Your task to perform on an android device: delete a single message in the gmail app Image 0: 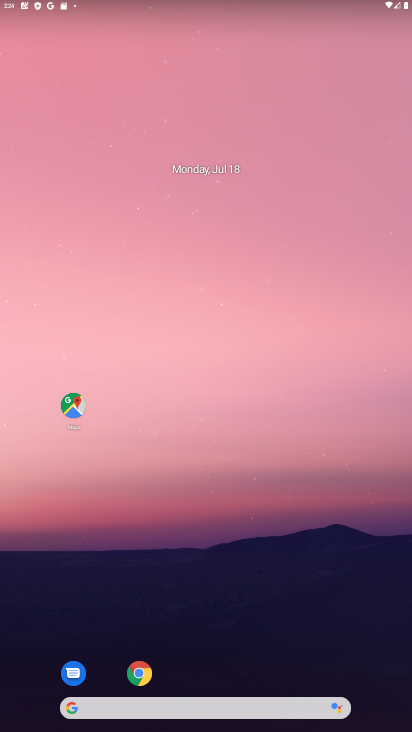
Step 0: drag from (226, 618) to (247, 218)
Your task to perform on an android device: delete a single message in the gmail app Image 1: 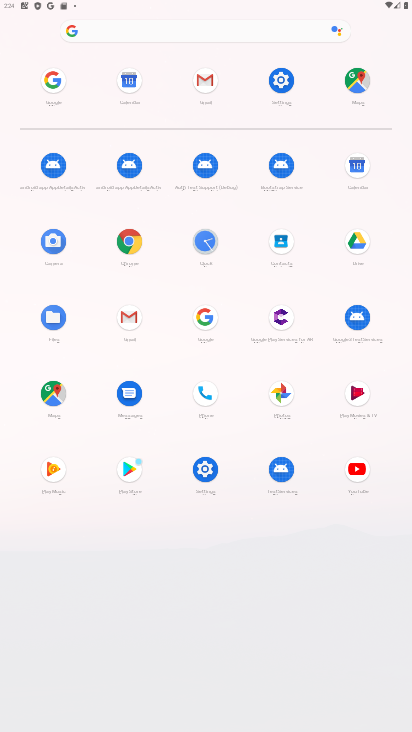
Step 1: click (127, 314)
Your task to perform on an android device: delete a single message in the gmail app Image 2: 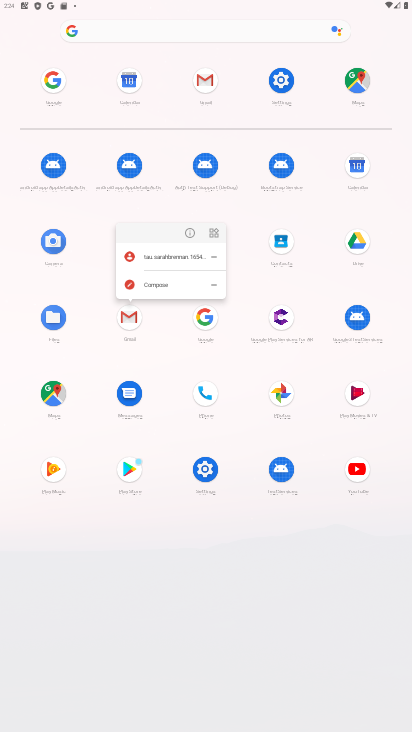
Step 2: click (128, 314)
Your task to perform on an android device: delete a single message in the gmail app Image 3: 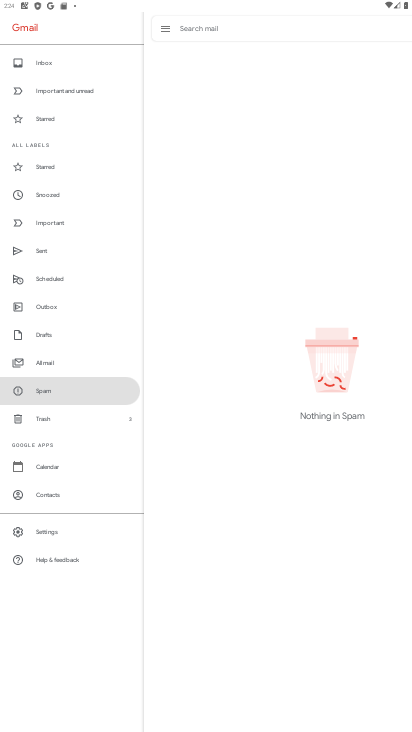
Step 3: click (42, 66)
Your task to perform on an android device: delete a single message in the gmail app Image 4: 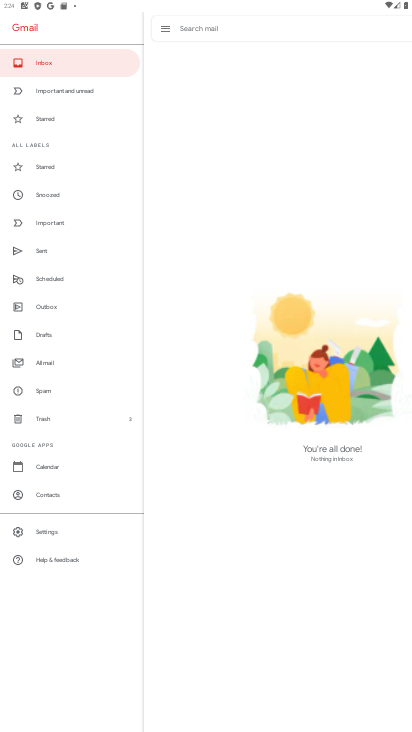
Step 4: click (50, 99)
Your task to perform on an android device: delete a single message in the gmail app Image 5: 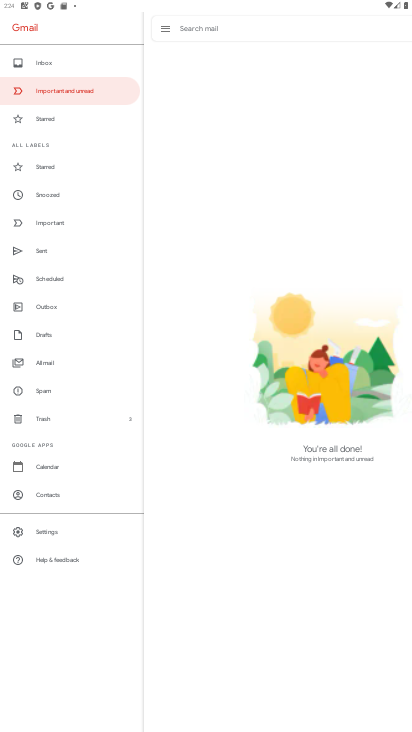
Step 5: click (33, 123)
Your task to perform on an android device: delete a single message in the gmail app Image 6: 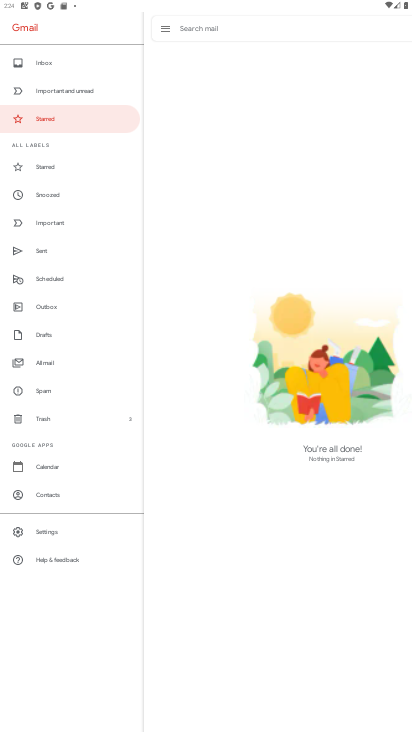
Step 6: click (41, 162)
Your task to perform on an android device: delete a single message in the gmail app Image 7: 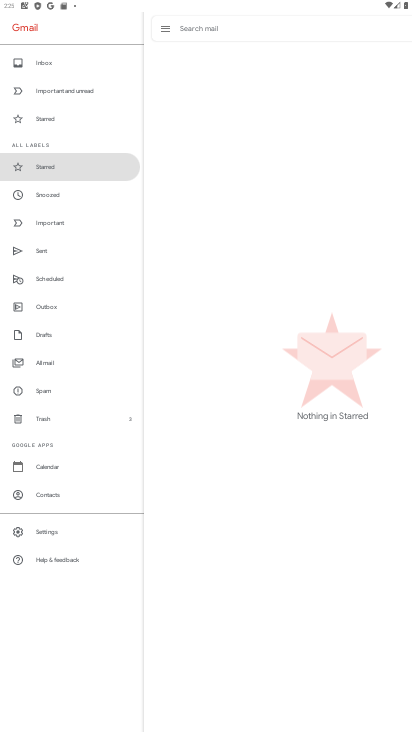
Step 7: click (46, 194)
Your task to perform on an android device: delete a single message in the gmail app Image 8: 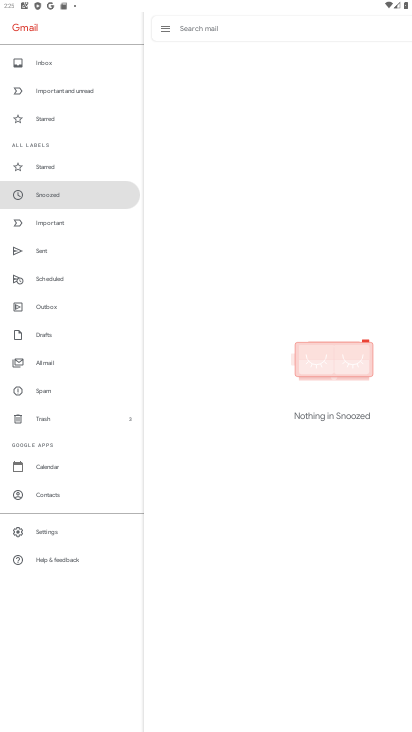
Step 8: click (55, 222)
Your task to perform on an android device: delete a single message in the gmail app Image 9: 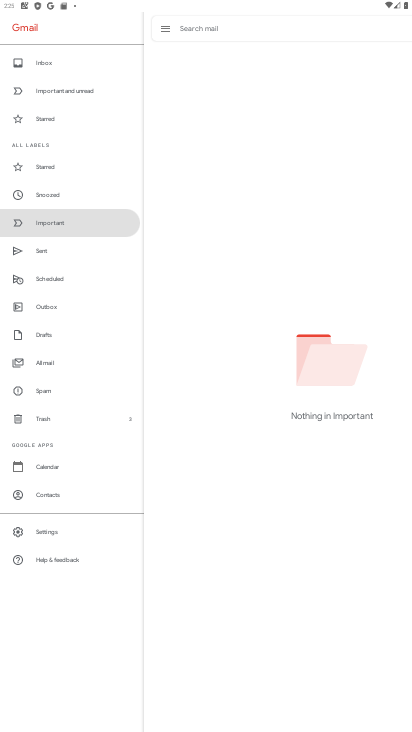
Step 9: click (39, 252)
Your task to perform on an android device: delete a single message in the gmail app Image 10: 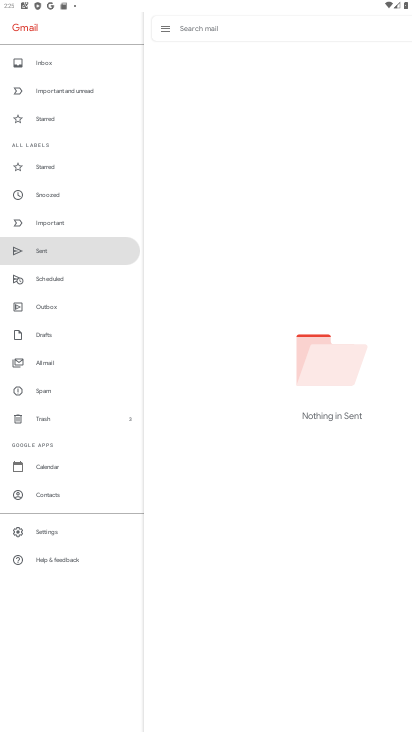
Step 10: click (46, 279)
Your task to perform on an android device: delete a single message in the gmail app Image 11: 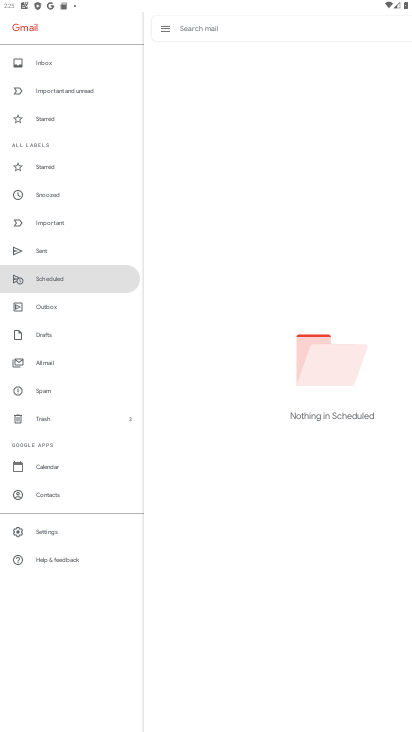
Step 11: click (57, 313)
Your task to perform on an android device: delete a single message in the gmail app Image 12: 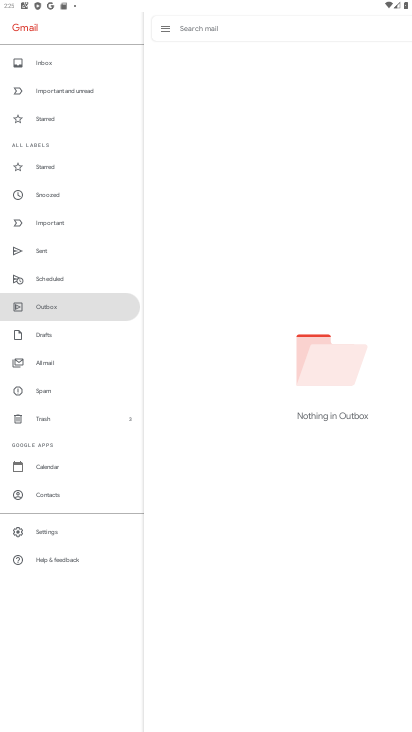
Step 12: click (49, 340)
Your task to perform on an android device: delete a single message in the gmail app Image 13: 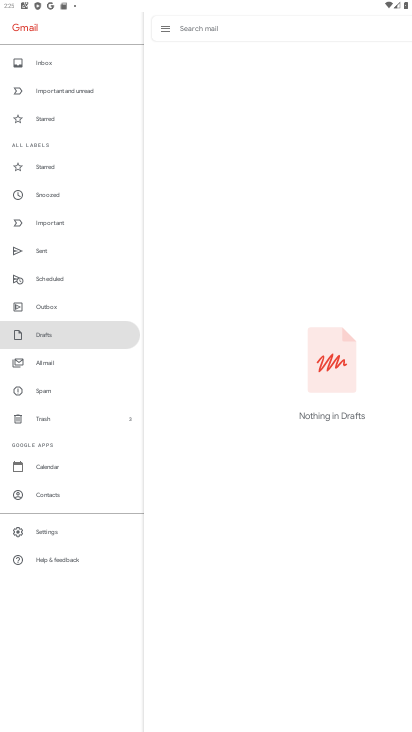
Step 13: click (39, 360)
Your task to perform on an android device: delete a single message in the gmail app Image 14: 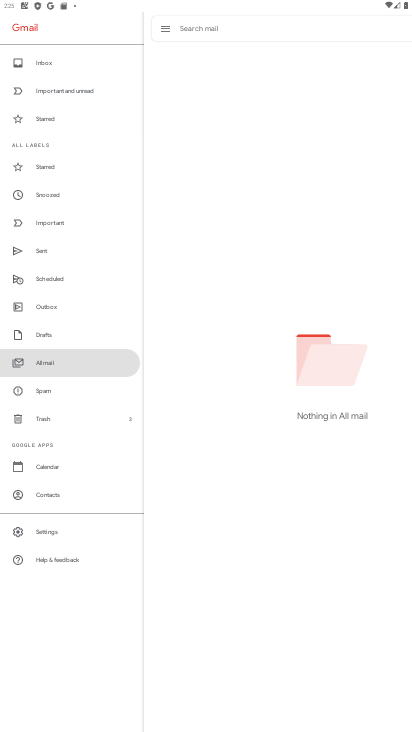
Step 14: task complete